Your task to perform on an android device: When is my next meeting? Image 0: 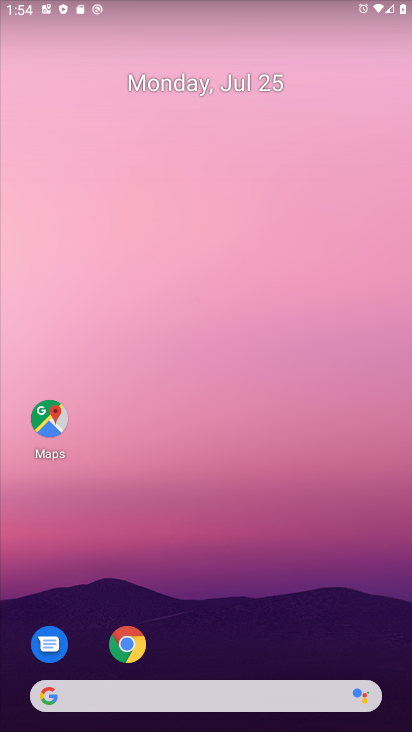
Step 0: drag from (360, 632) to (227, 4)
Your task to perform on an android device: When is my next meeting? Image 1: 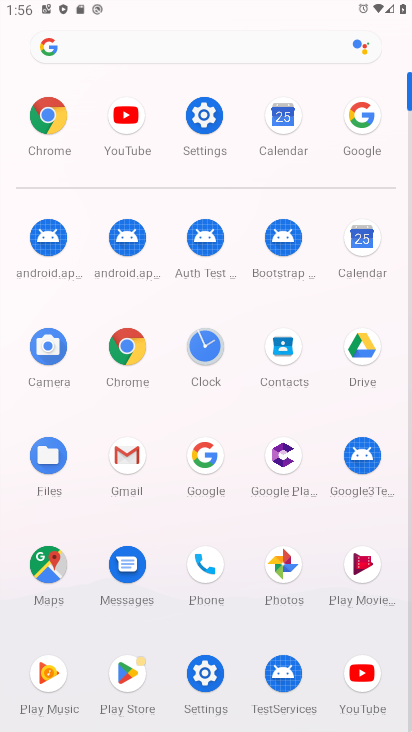
Step 1: click (368, 254)
Your task to perform on an android device: When is my next meeting? Image 2: 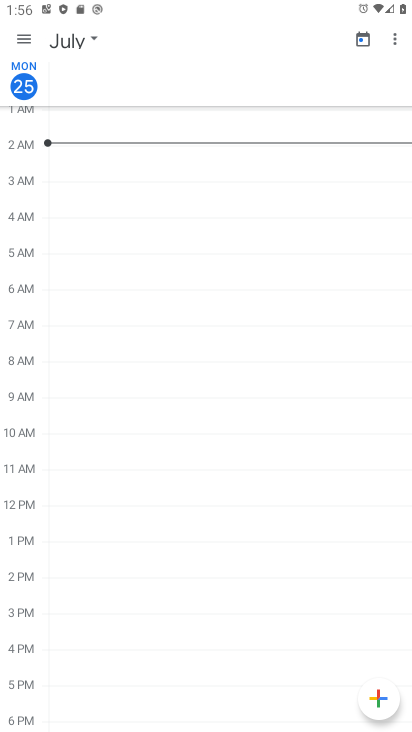
Step 2: task complete